Your task to perform on an android device: change timer sound Image 0: 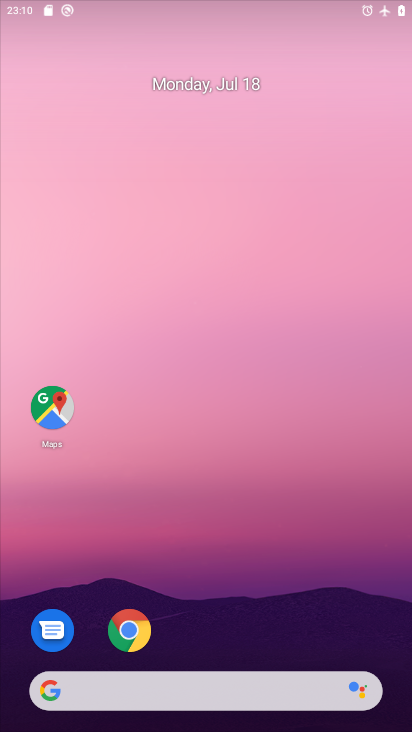
Step 0: drag from (195, 615) to (199, 73)
Your task to perform on an android device: change timer sound Image 1: 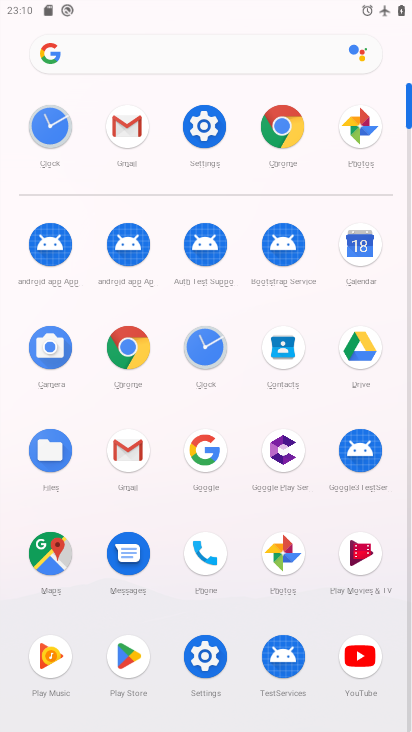
Step 1: click (201, 347)
Your task to perform on an android device: change timer sound Image 2: 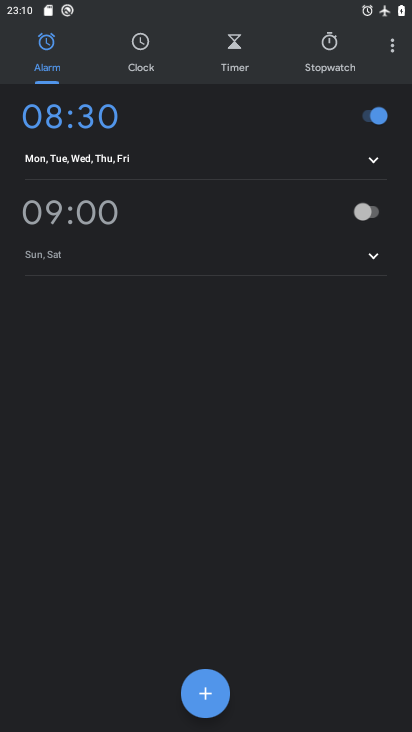
Step 2: click (407, 52)
Your task to perform on an android device: change timer sound Image 3: 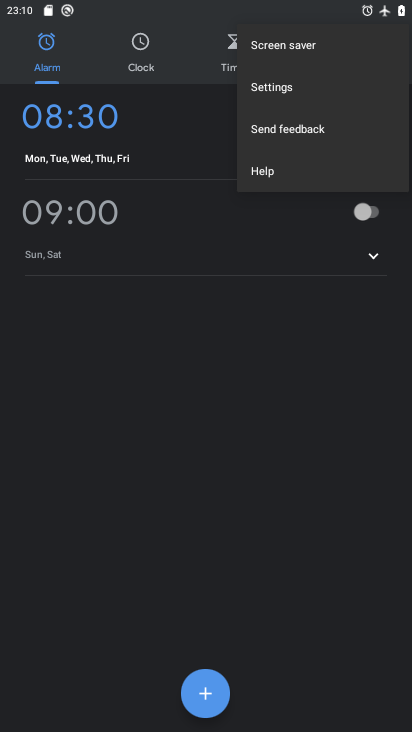
Step 3: click (297, 89)
Your task to perform on an android device: change timer sound Image 4: 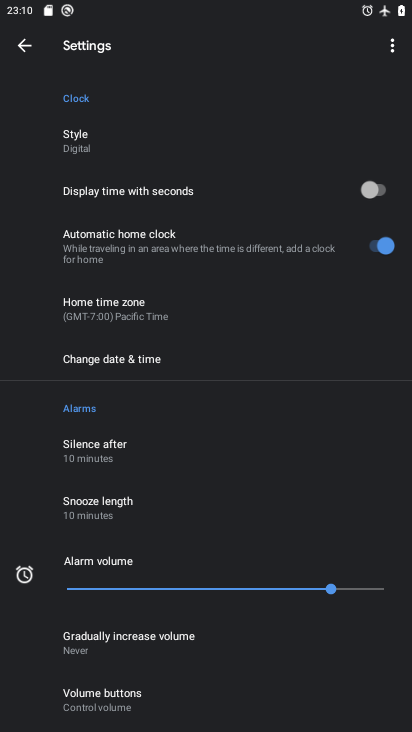
Step 4: drag from (139, 514) to (185, 174)
Your task to perform on an android device: change timer sound Image 5: 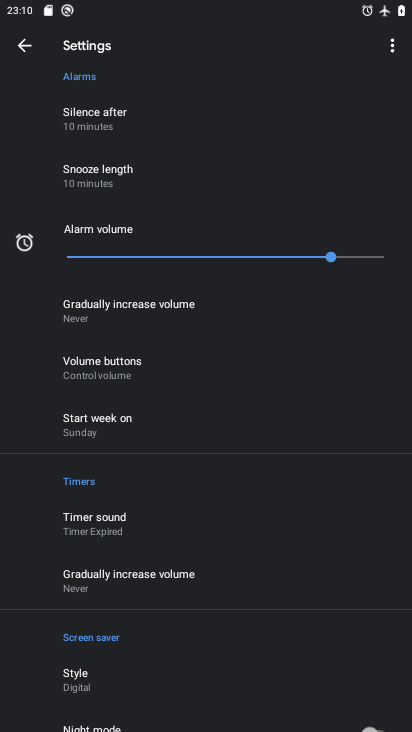
Step 5: click (141, 529)
Your task to perform on an android device: change timer sound Image 6: 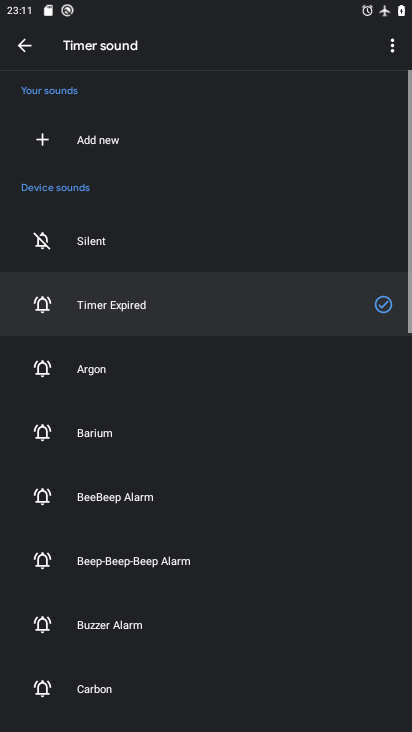
Step 6: click (163, 553)
Your task to perform on an android device: change timer sound Image 7: 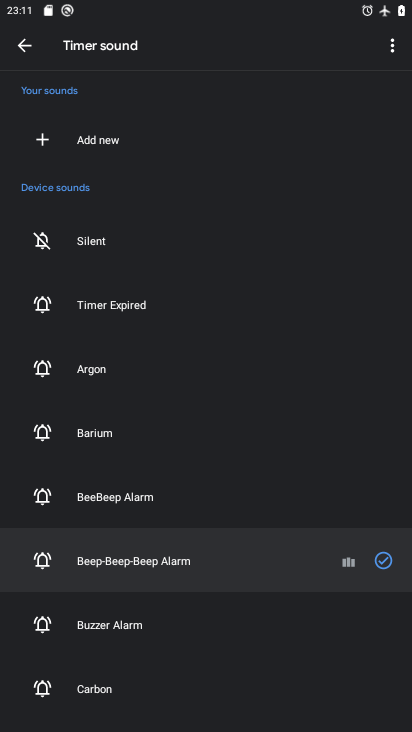
Step 7: task complete